Your task to perform on an android device: Open Yahoo.com Image 0: 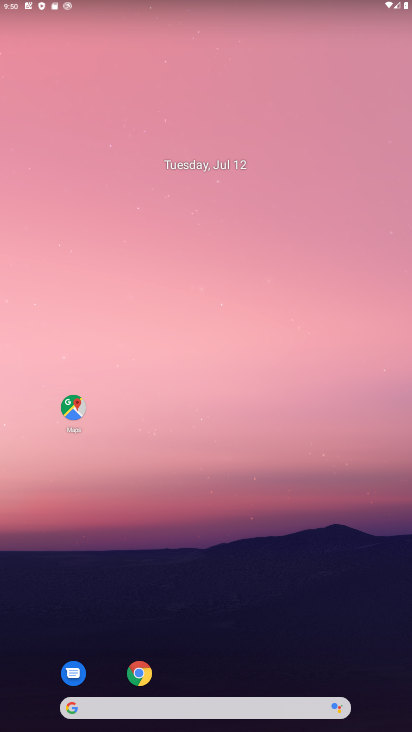
Step 0: click (136, 686)
Your task to perform on an android device: Open Yahoo.com Image 1: 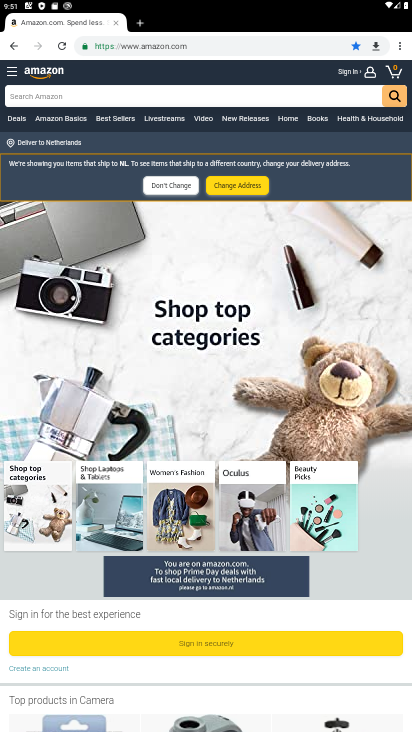
Step 1: press back button
Your task to perform on an android device: Open Yahoo.com Image 2: 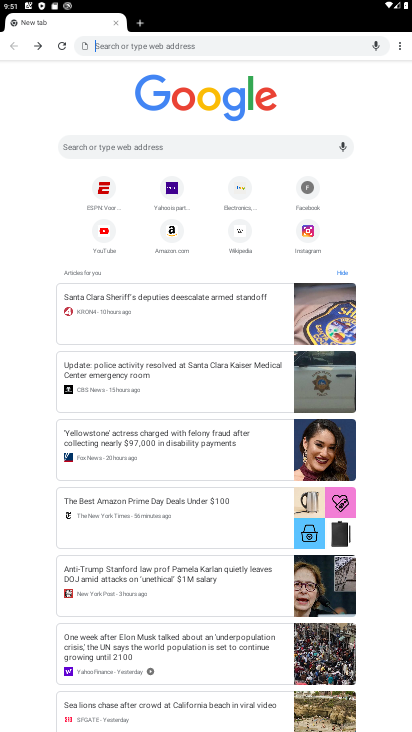
Step 2: click (172, 190)
Your task to perform on an android device: Open Yahoo.com Image 3: 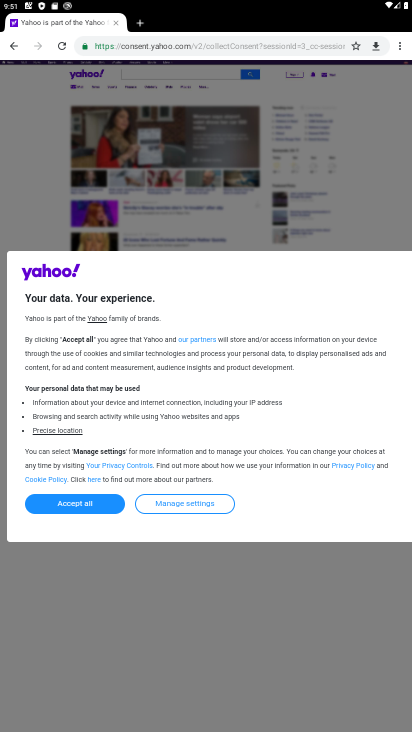
Step 3: task complete